Your task to perform on an android device: toggle improve location accuracy Image 0: 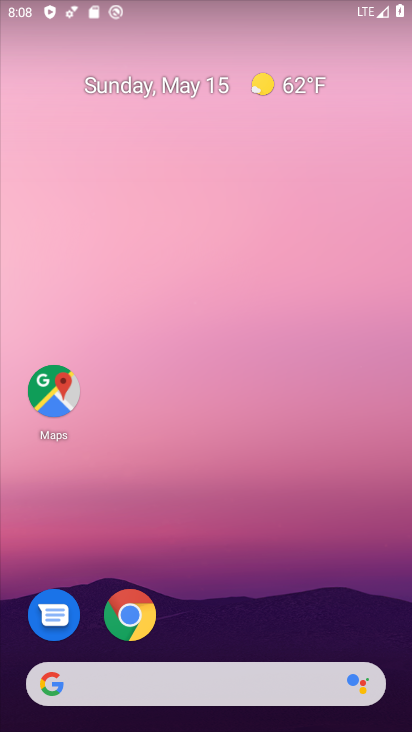
Step 0: drag from (241, 515) to (344, 93)
Your task to perform on an android device: toggle improve location accuracy Image 1: 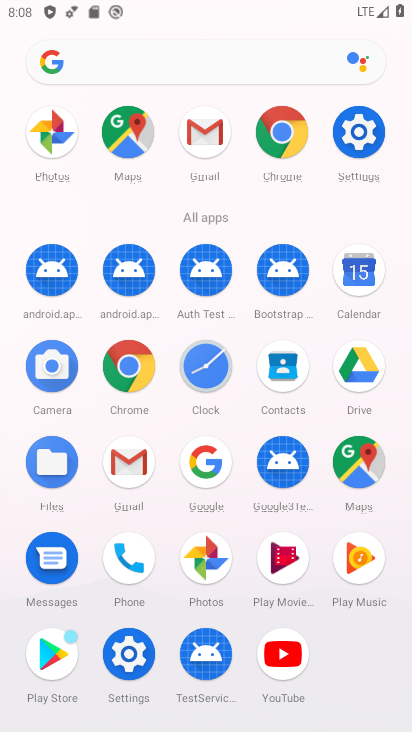
Step 1: click (362, 133)
Your task to perform on an android device: toggle improve location accuracy Image 2: 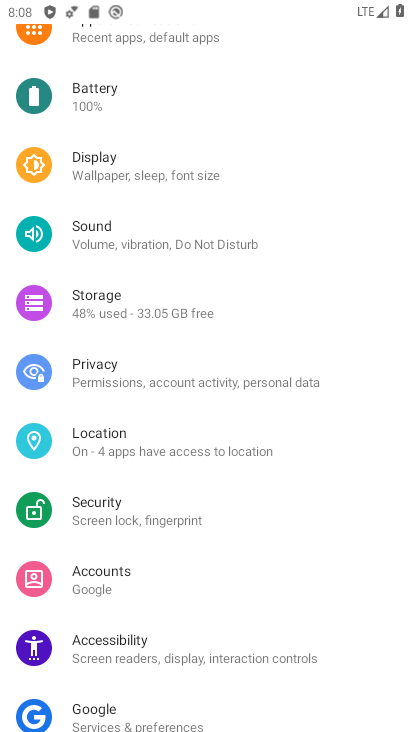
Step 2: click (176, 442)
Your task to perform on an android device: toggle improve location accuracy Image 3: 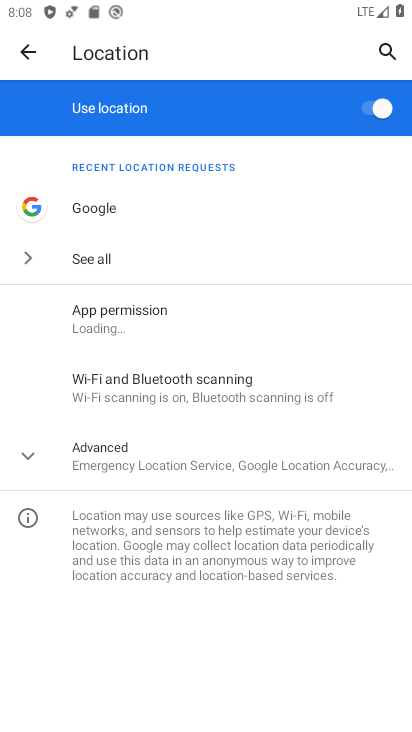
Step 3: click (158, 469)
Your task to perform on an android device: toggle improve location accuracy Image 4: 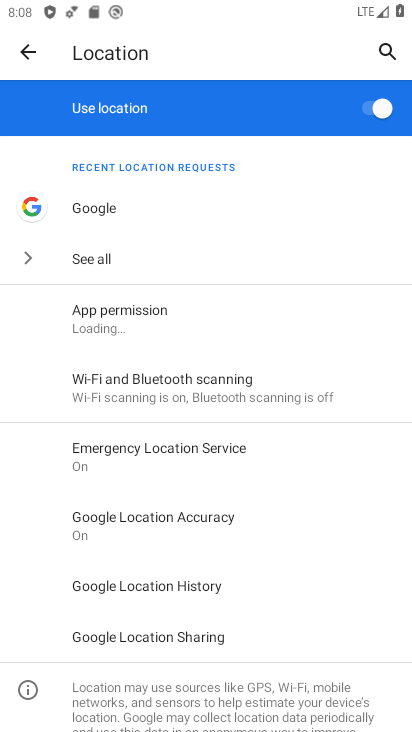
Step 4: click (180, 523)
Your task to perform on an android device: toggle improve location accuracy Image 5: 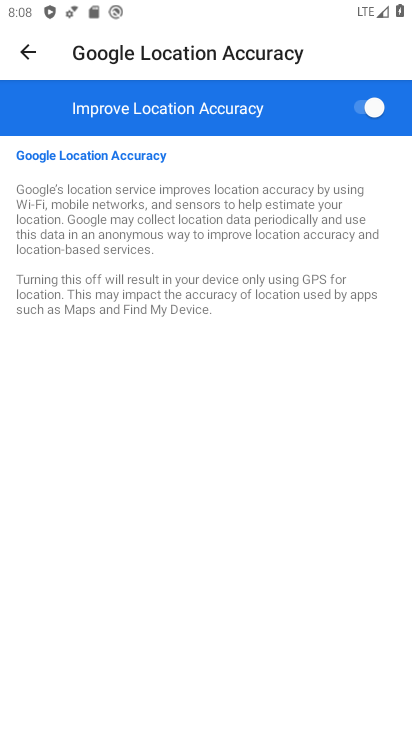
Step 5: click (366, 110)
Your task to perform on an android device: toggle improve location accuracy Image 6: 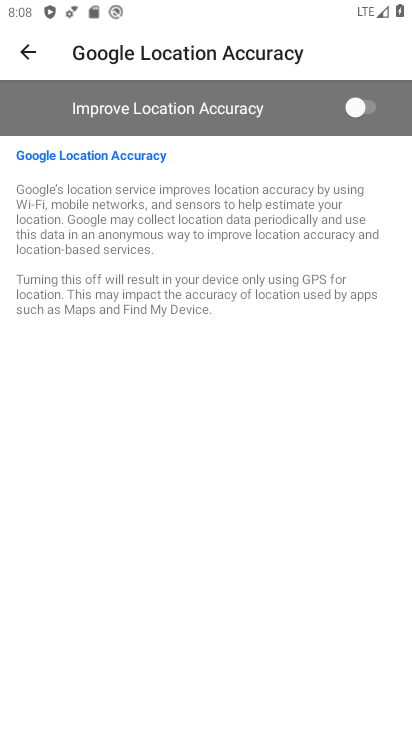
Step 6: task complete